Your task to perform on an android device: Go to calendar. Show me events next week Image 0: 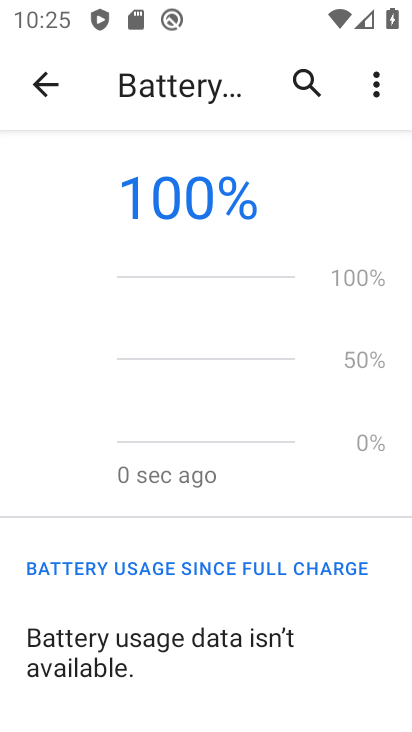
Step 0: press home button
Your task to perform on an android device: Go to calendar. Show me events next week Image 1: 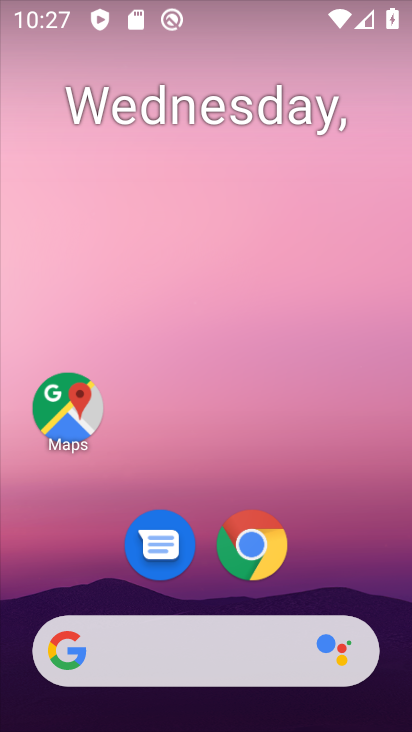
Step 1: drag from (186, 708) to (268, 64)
Your task to perform on an android device: Go to calendar. Show me events next week Image 2: 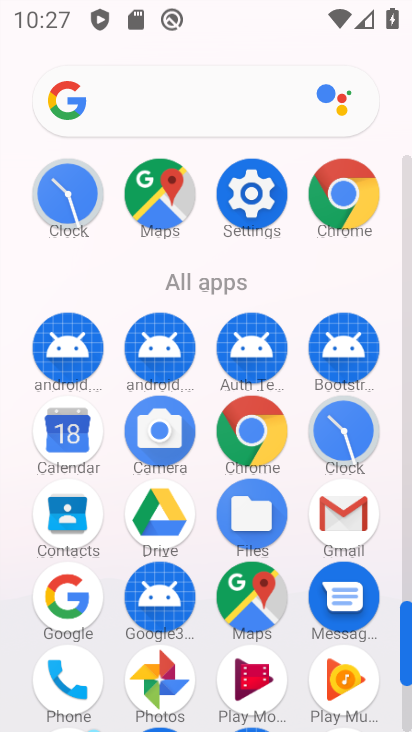
Step 2: click (74, 450)
Your task to perform on an android device: Go to calendar. Show me events next week Image 3: 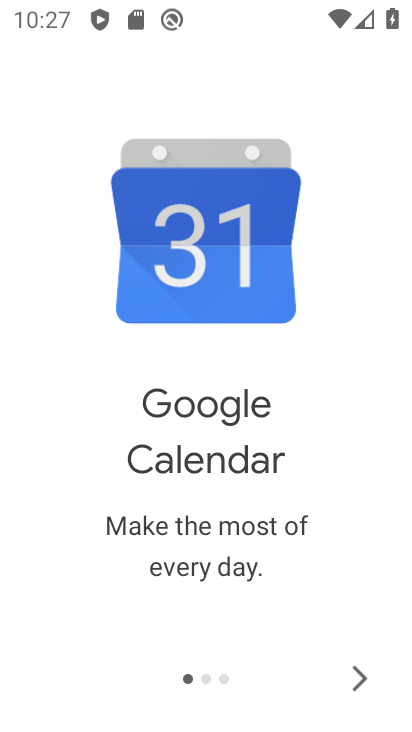
Step 3: click (364, 676)
Your task to perform on an android device: Go to calendar. Show me events next week Image 4: 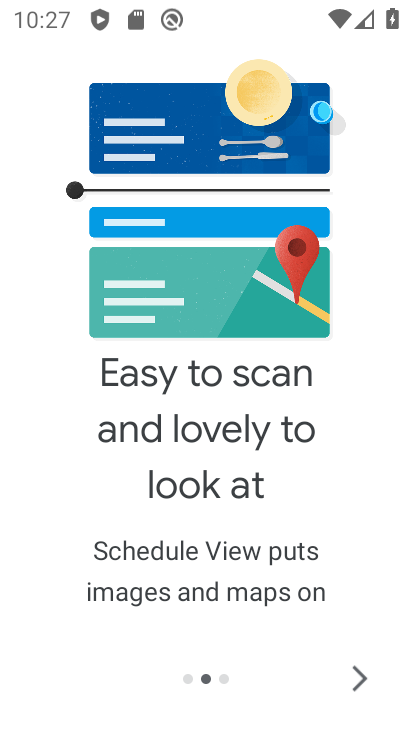
Step 4: click (364, 676)
Your task to perform on an android device: Go to calendar. Show me events next week Image 5: 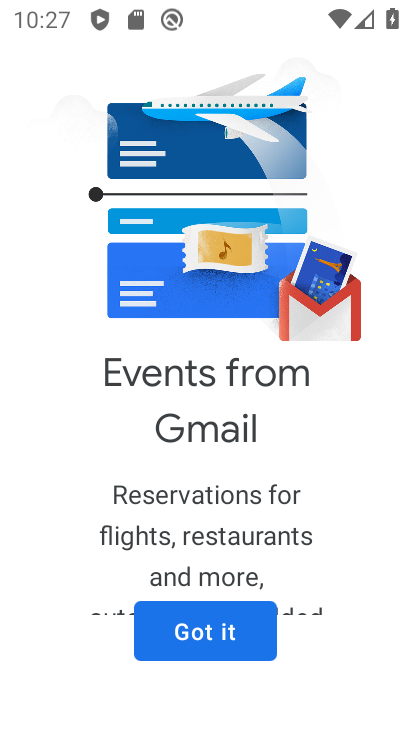
Step 5: click (234, 630)
Your task to perform on an android device: Go to calendar. Show me events next week Image 6: 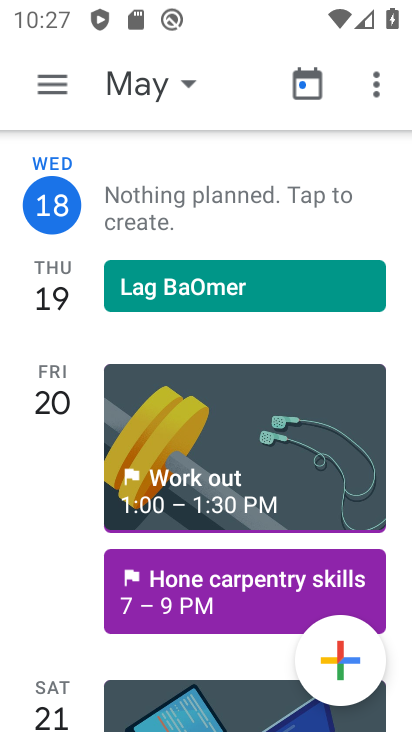
Step 6: click (131, 89)
Your task to perform on an android device: Go to calendar. Show me events next week Image 7: 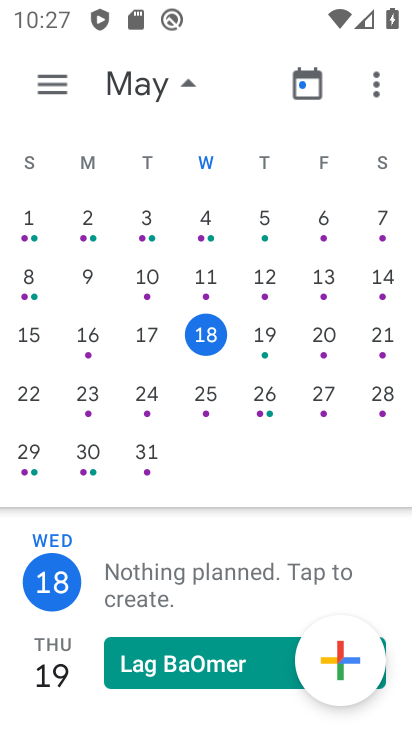
Step 7: click (36, 402)
Your task to perform on an android device: Go to calendar. Show me events next week Image 8: 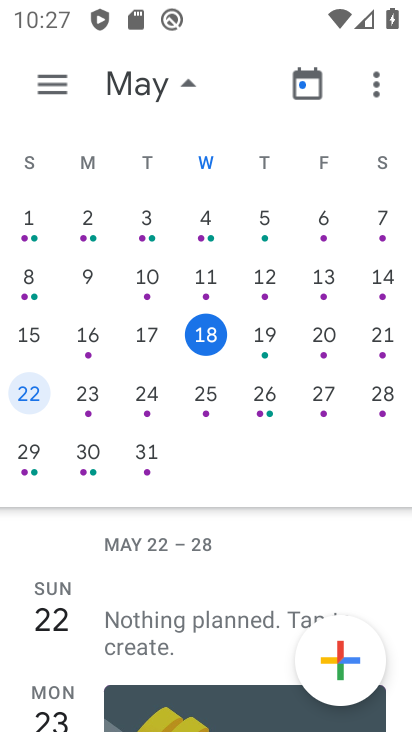
Step 8: task complete